Your task to perform on an android device: What is the news today? Image 0: 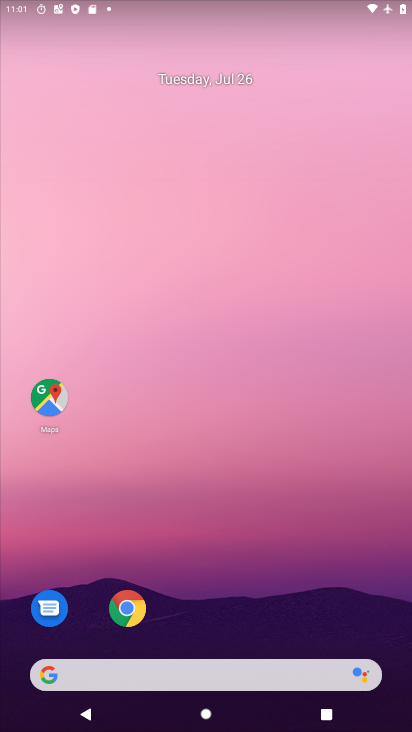
Step 0: drag from (221, 613) to (202, 168)
Your task to perform on an android device: What is the news today? Image 1: 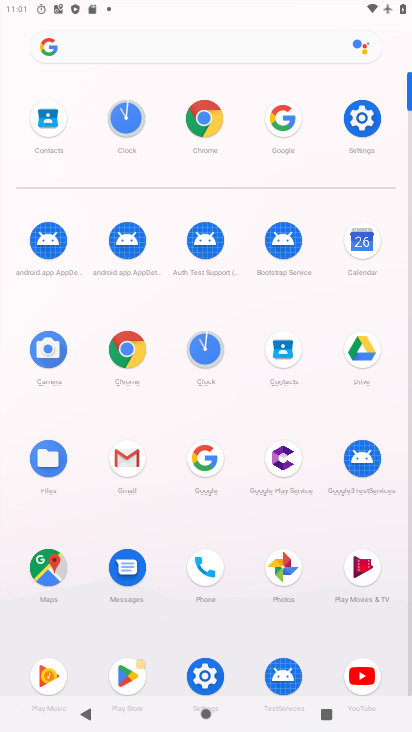
Step 1: click (202, 451)
Your task to perform on an android device: What is the news today? Image 2: 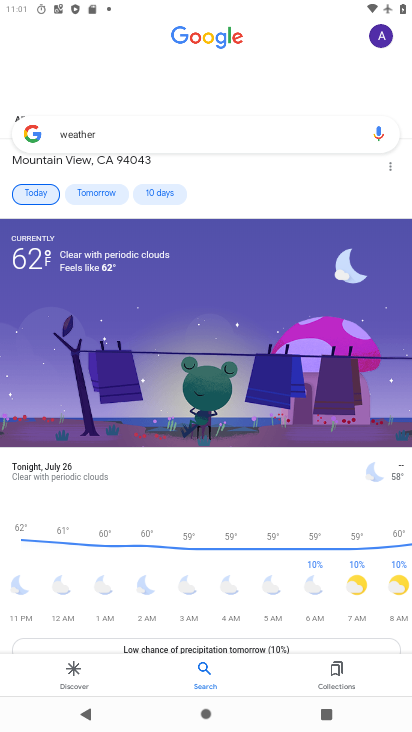
Step 2: click (225, 121)
Your task to perform on an android device: What is the news today? Image 3: 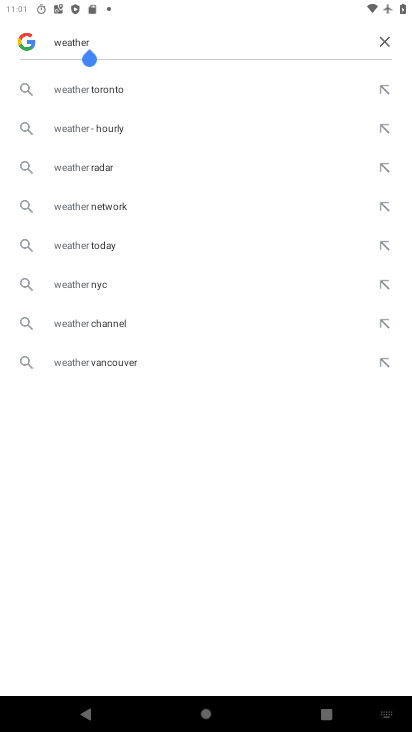
Step 3: click (383, 36)
Your task to perform on an android device: What is the news today? Image 4: 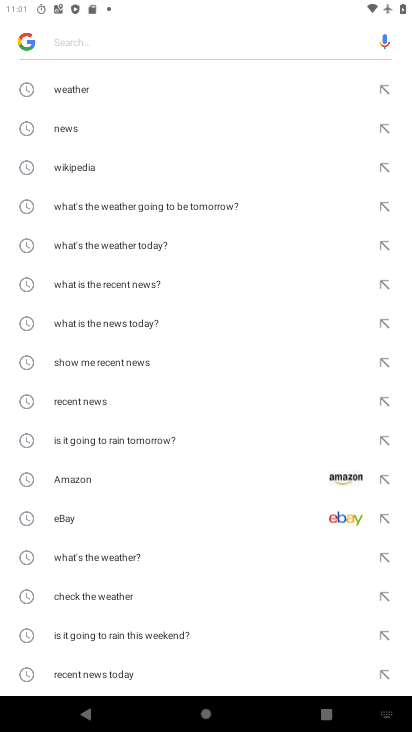
Step 4: click (96, 124)
Your task to perform on an android device: What is the news today? Image 5: 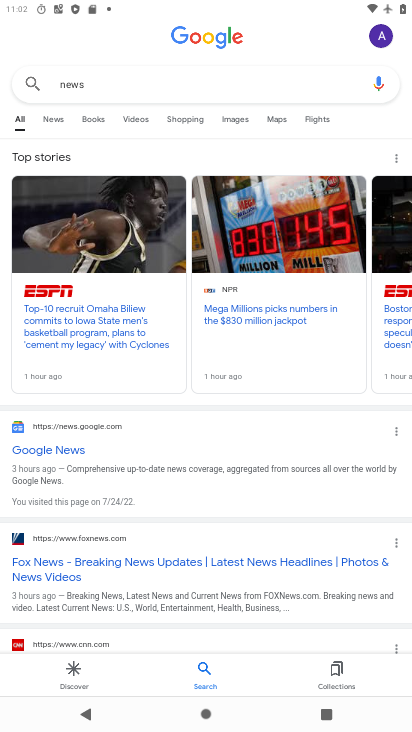
Step 5: task complete